Your task to perform on an android device: change the clock display to digital Image 0: 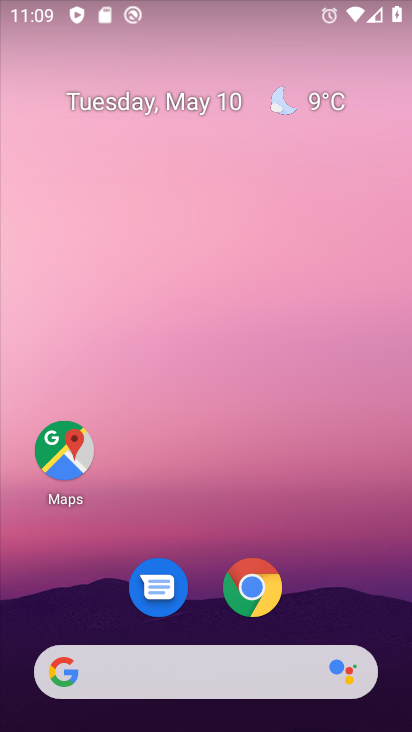
Step 0: drag from (338, 612) to (340, 2)
Your task to perform on an android device: change the clock display to digital Image 1: 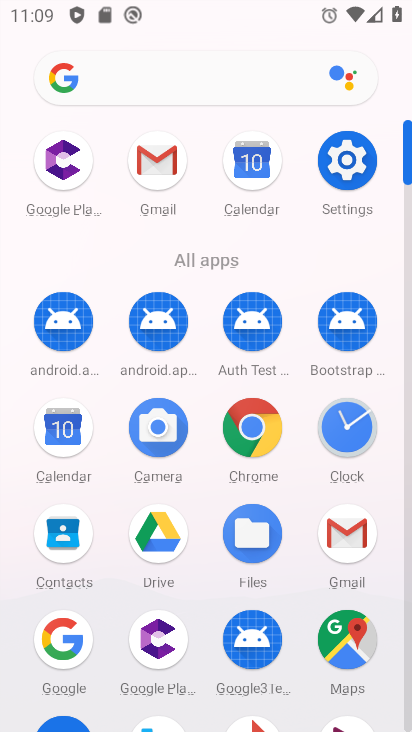
Step 1: click (334, 428)
Your task to perform on an android device: change the clock display to digital Image 2: 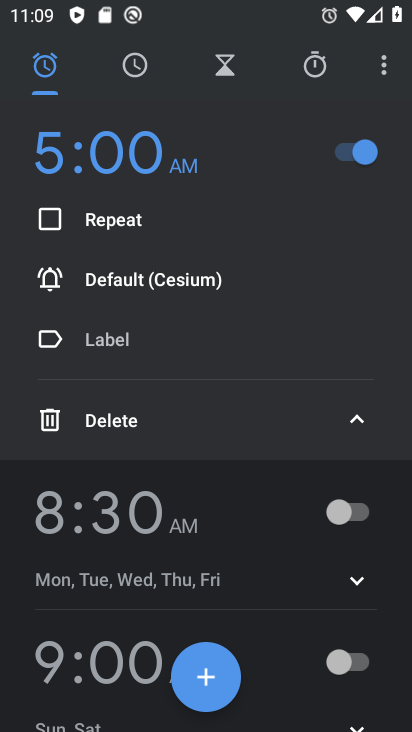
Step 2: click (387, 70)
Your task to perform on an android device: change the clock display to digital Image 3: 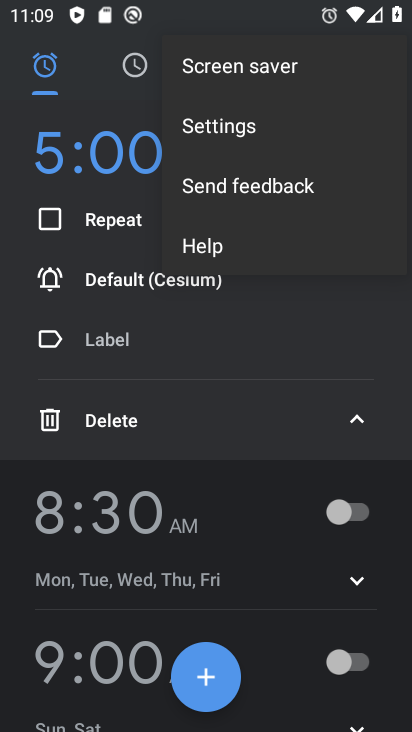
Step 3: click (261, 135)
Your task to perform on an android device: change the clock display to digital Image 4: 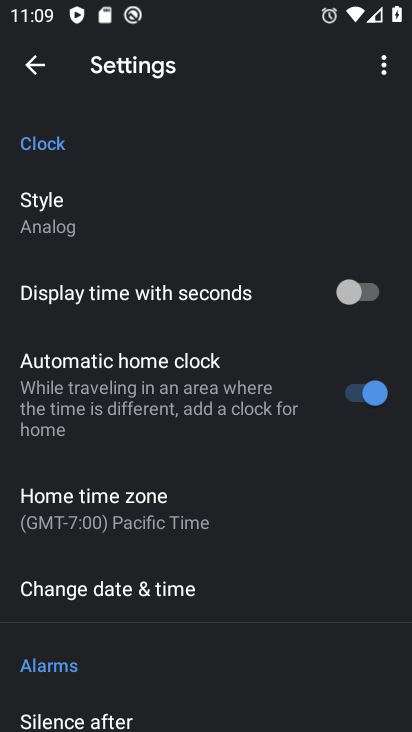
Step 4: click (49, 220)
Your task to perform on an android device: change the clock display to digital Image 5: 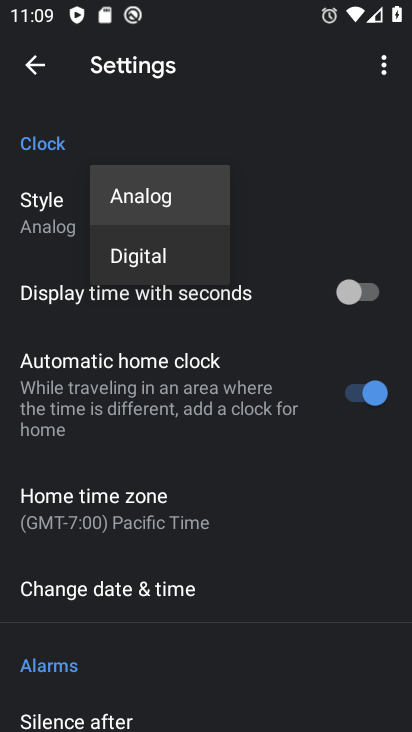
Step 5: click (135, 262)
Your task to perform on an android device: change the clock display to digital Image 6: 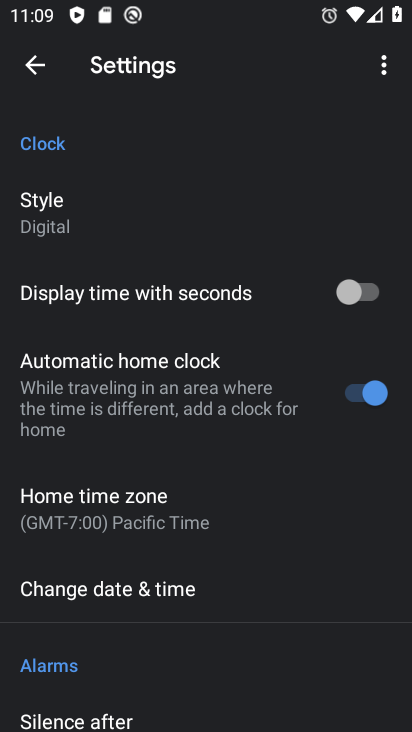
Step 6: task complete